Your task to perform on an android device: change notifications settings Image 0: 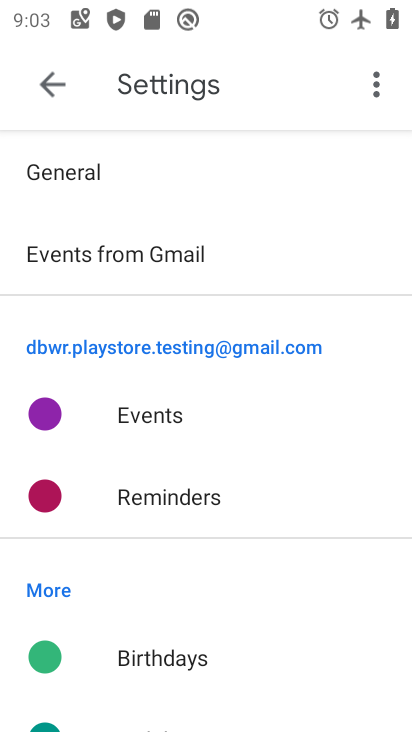
Step 0: drag from (241, 168) to (262, 462)
Your task to perform on an android device: change notifications settings Image 1: 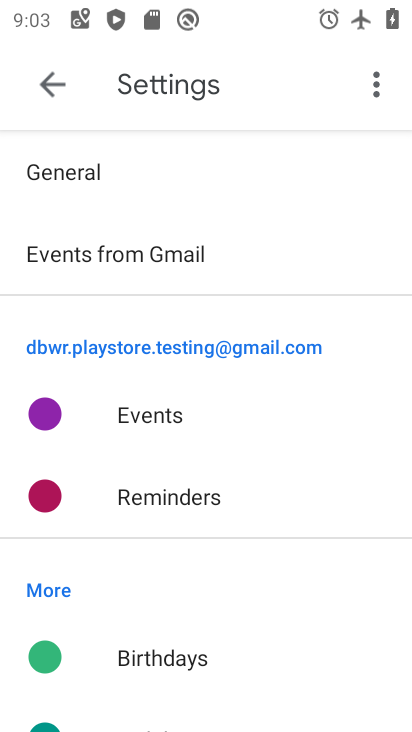
Step 1: press home button
Your task to perform on an android device: change notifications settings Image 2: 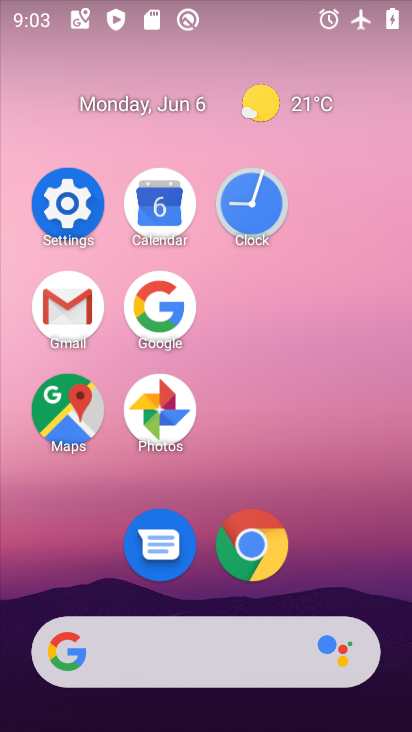
Step 2: click (64, 227)
Your task to perform on an android device: change notifications settings Image 3: 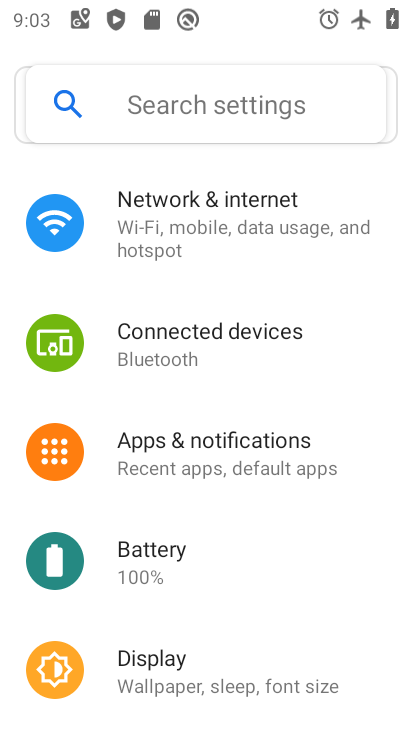
Step 3: click (242, 459)
Your task to perform on an android device: change notifications settings Image 4: 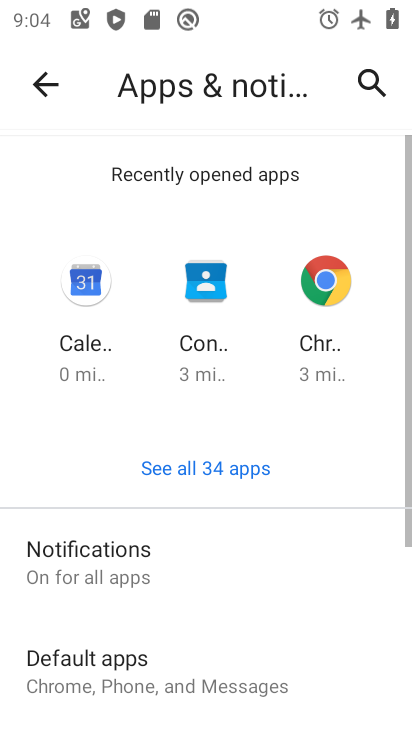
Step 4: task complete